Your task to perform on an android device: Go to display settings Image 0: 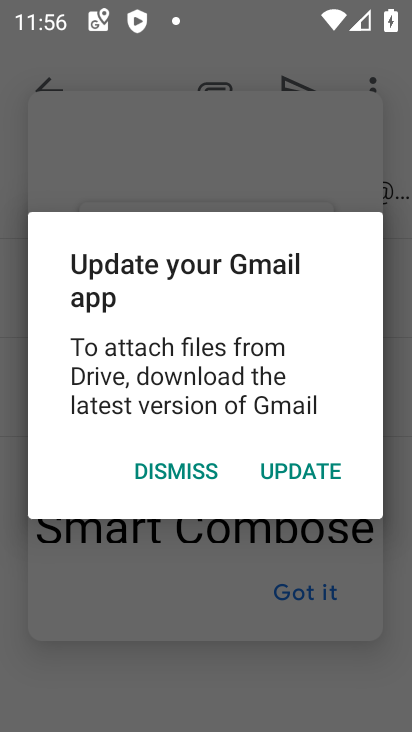
Step 0: press home button
Your task to perform on an android device: Go to display settings Image 1: 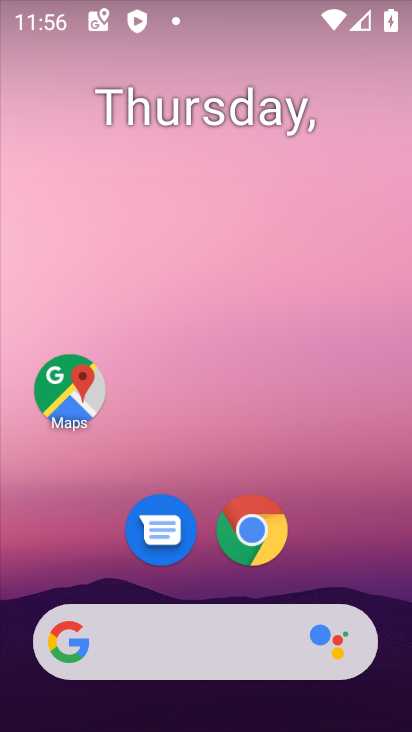
Step 1: drag from (332, 564) to (280, 119)
Your task to perform on an android device: Go to display settings Image 2: 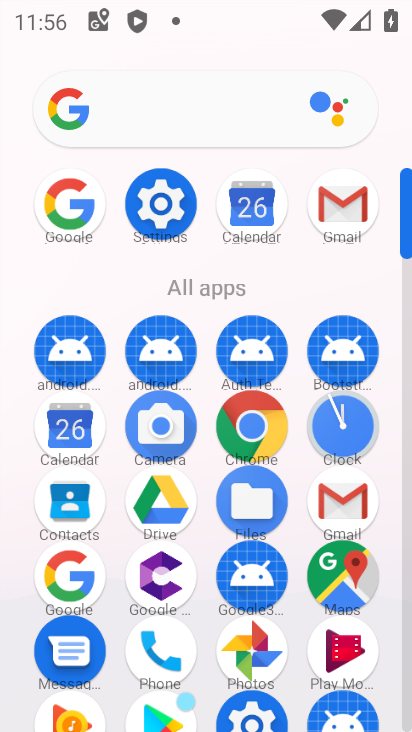
Step 2: click (160, 207)
Your task to perform on an android device: Go to display settings Image 3: 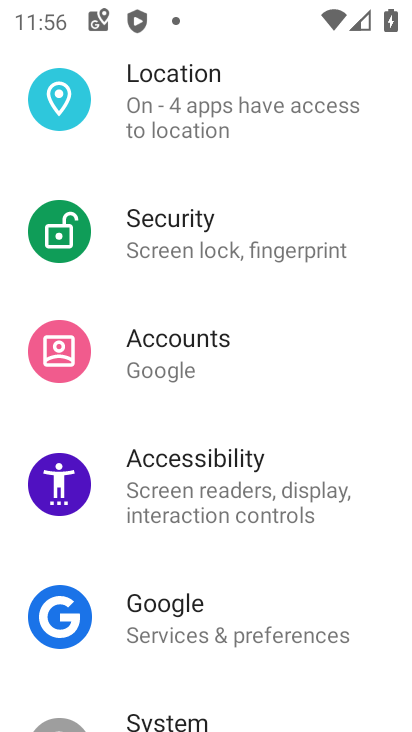
Step 3: drag from (171, 547) to (221, 360)
Your task to perform on an android device: Go to display settings Image 4: 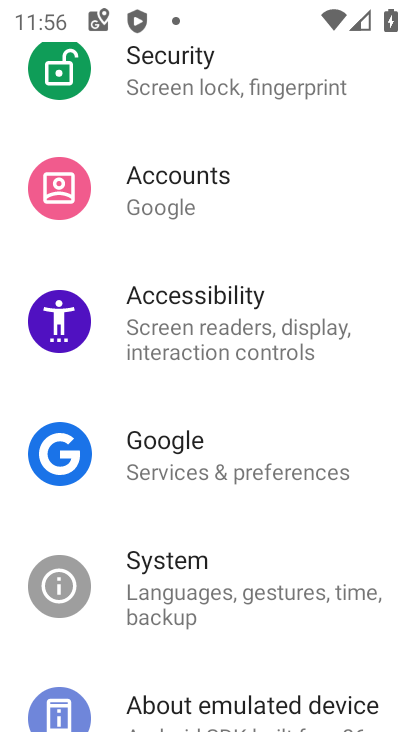
Step 4: drag from (221, 358) to (220, 476)
Your task to perform on an android device: Go to display settings Image 5: 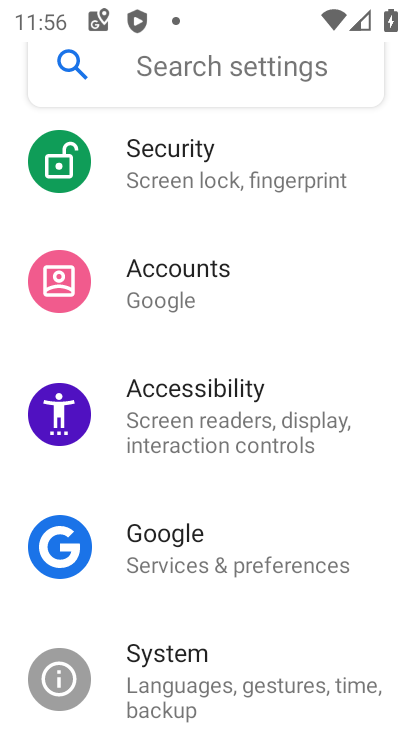
Step 5: drag from (242, 267) to (213, 483)
Your task to perform on an android device: Go to display settings Image 6: 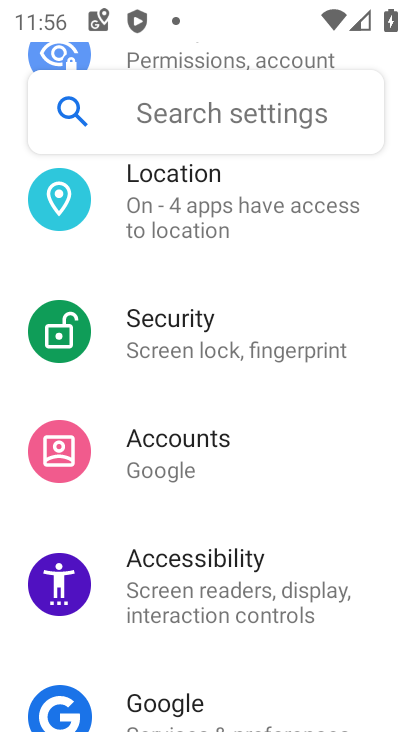
Step 6: drag from (219, 295) to (214, 471)
Your task to perform on an android device: Go to display settings Image 7: 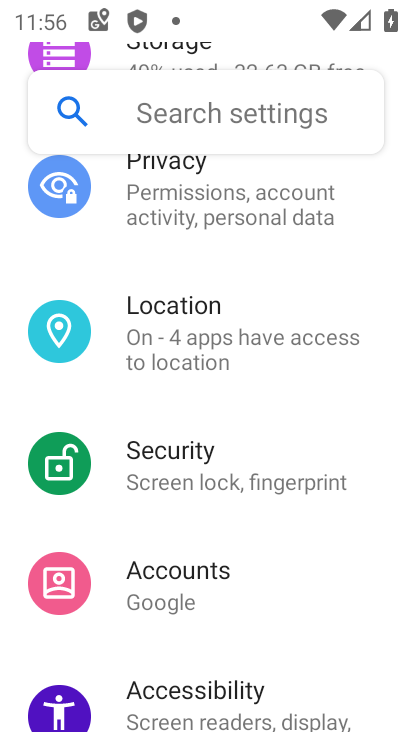
Step 7: drag from (199, 283) to (218, 471)
Your task to perform on an android device: Go to display settings Image 8: 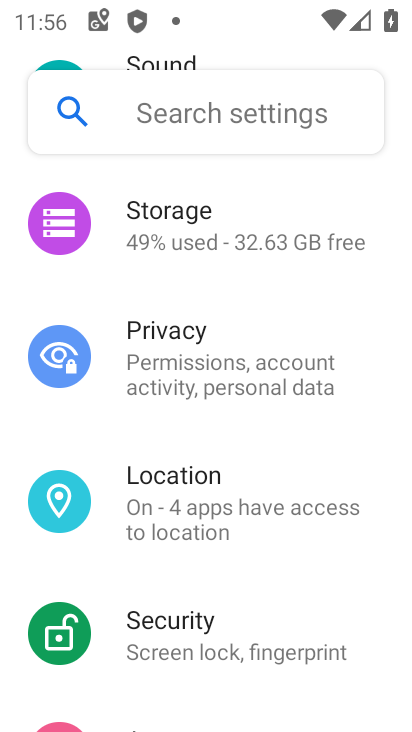
Step 8: drag from (223, 308) to (222, 481)
Your task to perform on an android device: Go to display settings Image 9: 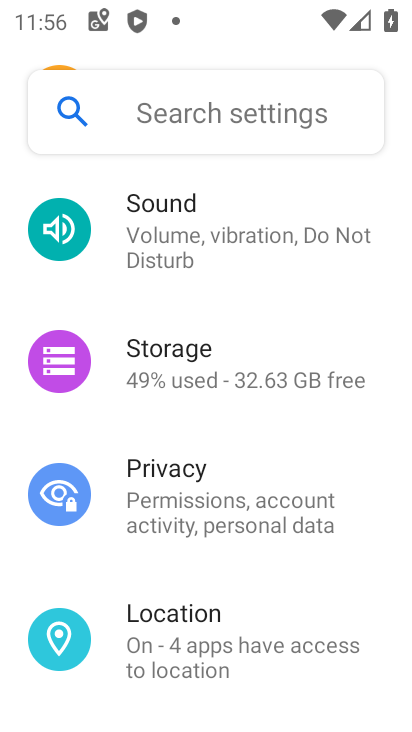
Step 9: drag from (193, 301) to (197, 465)
Your task to perform on an android device: Go to display settings Image 10: 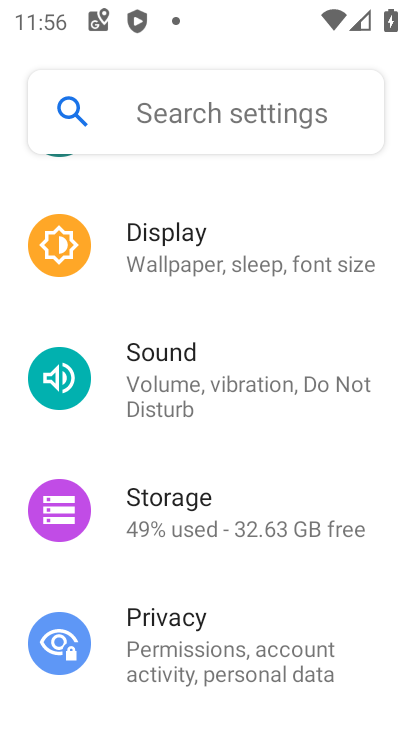
Step 10: click (176, 276)
Your task to perform on an android device: Go to display settings Image 11: 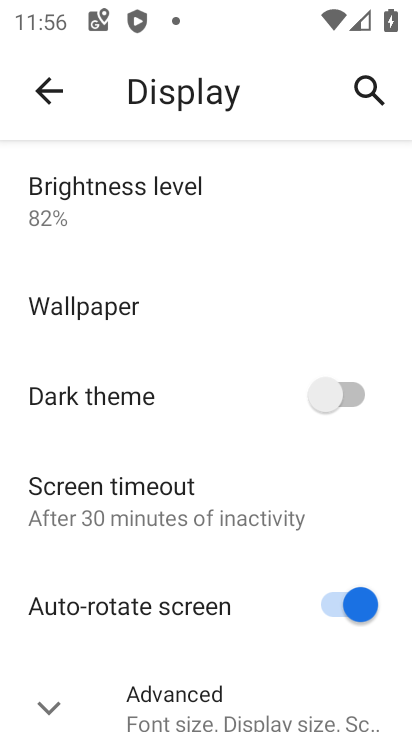
Step 11: task complete